Your task to perform on an android device: Open Yahoo.com Image 0: 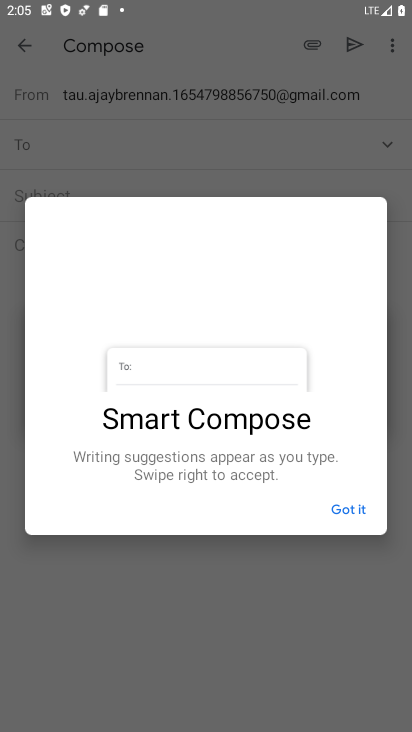
Step 0: press home button
Your task to perform on an android device: Open Yahoo.com Image 1: 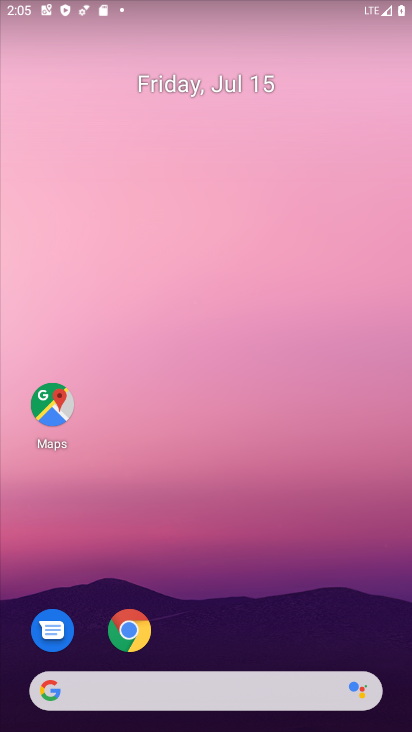
Step 1: click (38, 693)
Your task to perform on an android device: Open Yahoo.com Image 2: 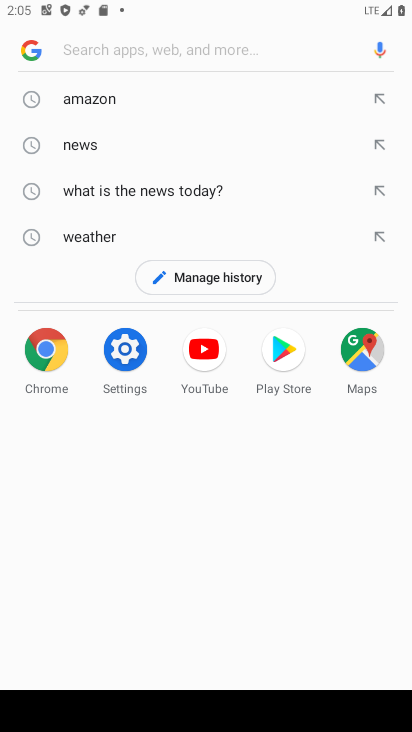
Step 2: type " Yahoo.com"
Your task to perform on an android device: Open Yahoo.com Image 3: 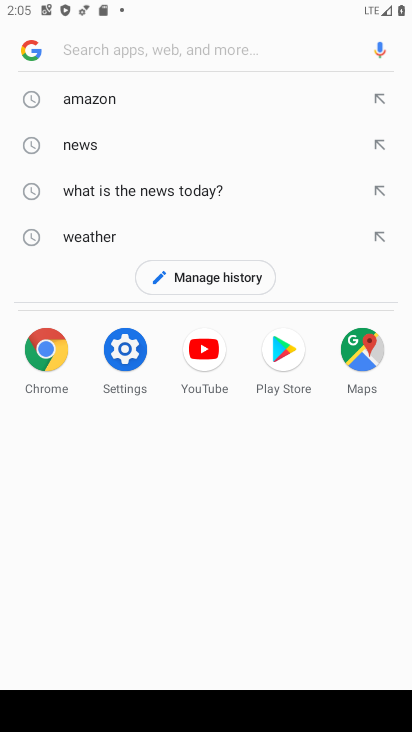
Step 3: click (112, 40)
Your task to perform on an android device: Open Yahoo.com Image 4: 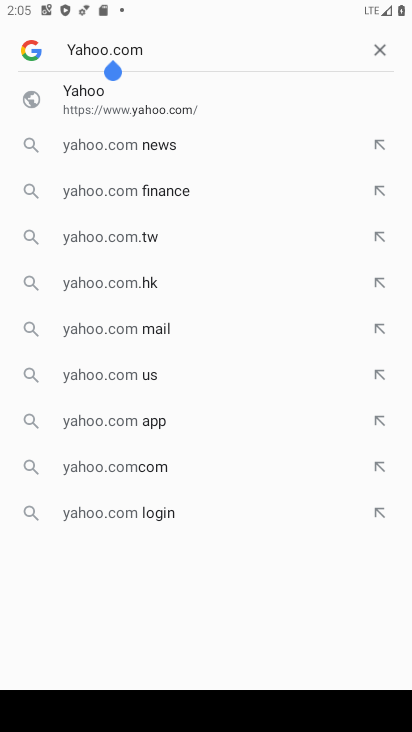
Step 4: click (81, 96)
Your task to perform on an android device: Open Yahoo.com Image 5: 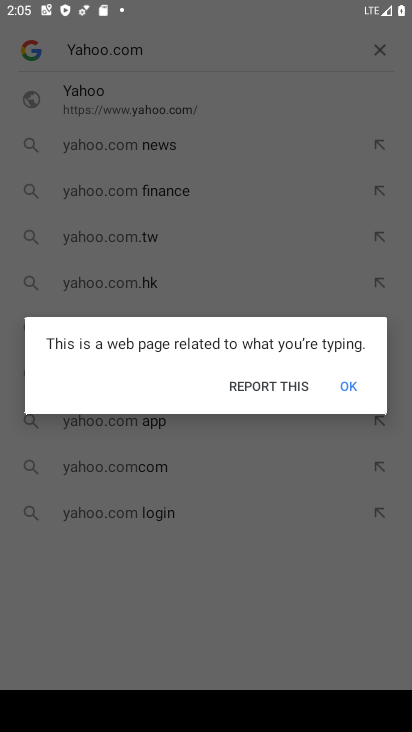
Step 5: click (341, 390)
Your task to perform on an android device: Open Yahoo.com Image 6: 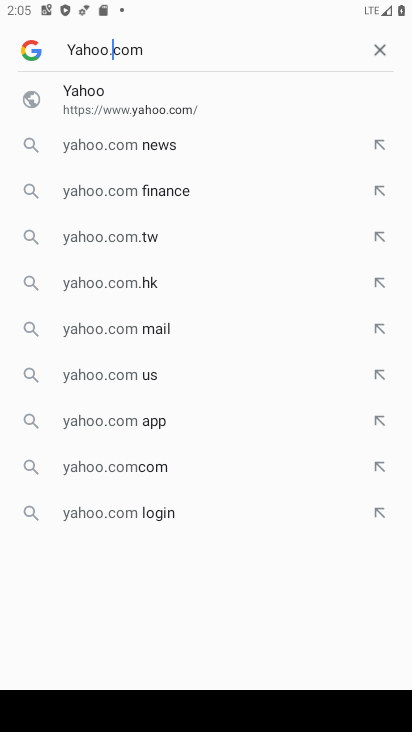
Step 6: click (145, 100)
Your task to perform on an android device: Open Yahoo.com Image 7: 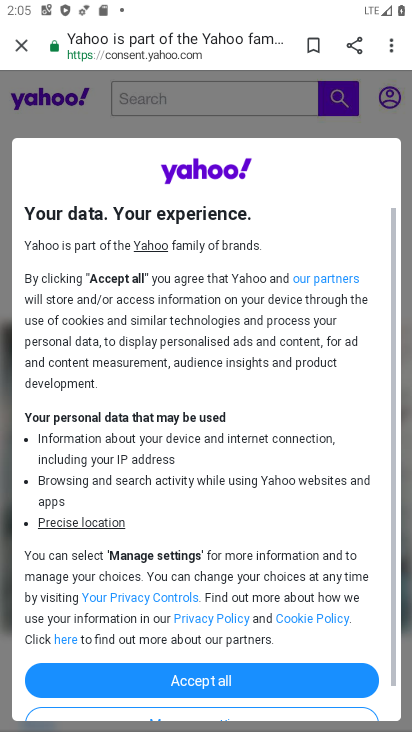
Step 7: click (184, 682)
Your task to perform on an android device: Open Yahoo.com Image 8: 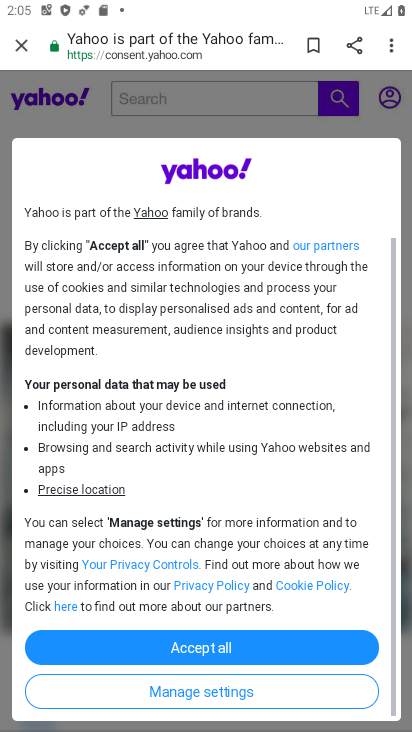
Step 8: click (256, 647)
Your task to perform on an android device: Open Yahoo.com Image 9: 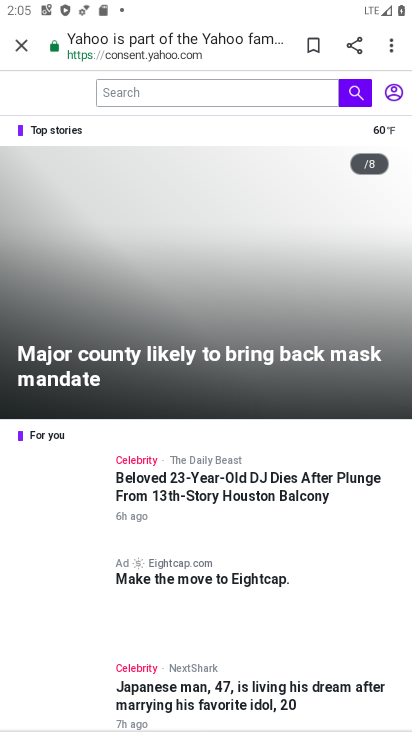
Step 9: task complete